Your task to perform on an android device: toggle translation in the chrome app Image 0: 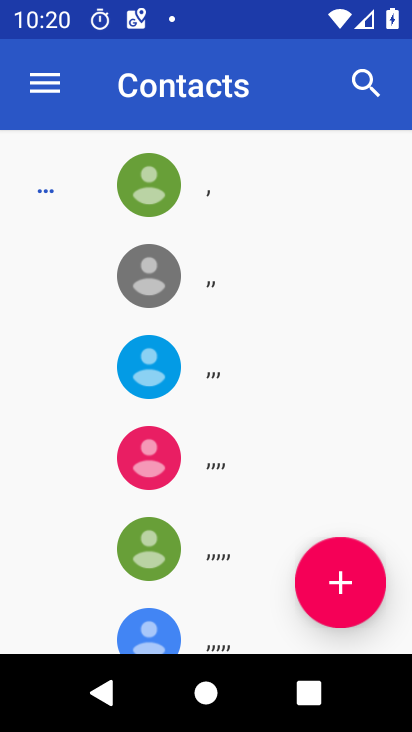
Step 0: press home button
Your task to perform on an android device: toggle translation in the chrome app Image 1: 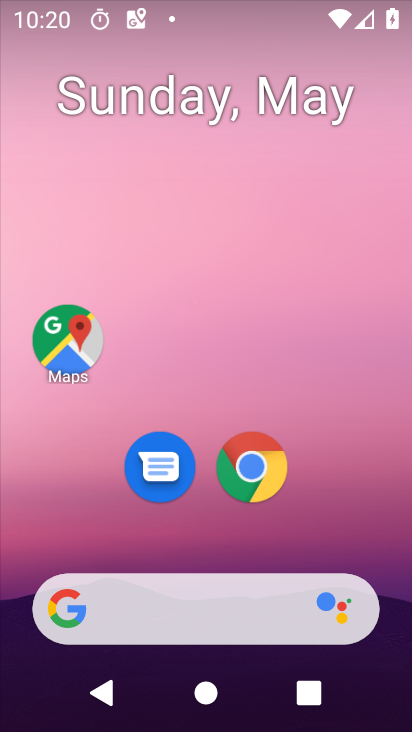
Step 1: click (250, 483)
Your task to perform on an android device: toggle translation in the chrome app Image 2: 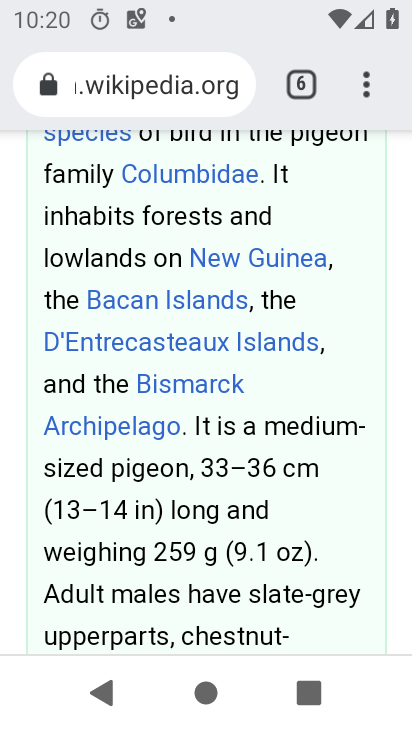
Step 2: drag from (362, 79) to (116, 516)
Your task to perform on an android device: toggle translation in the chrome app Image 3: 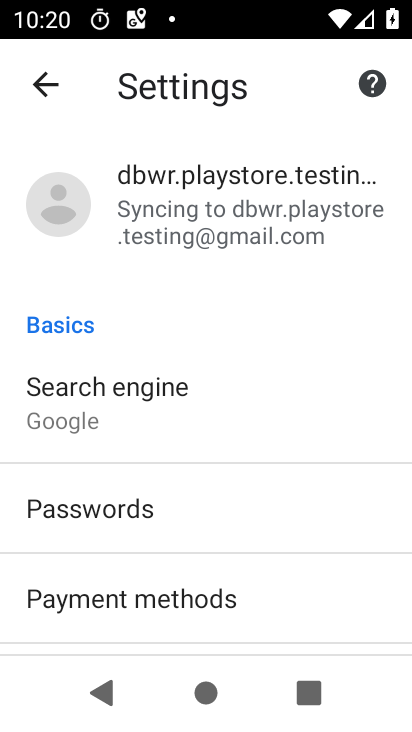
Step 3: drag from (149, 563) to (132, 271)
Your task to perform on an android device: toggle translation in the chrome app Image 4: 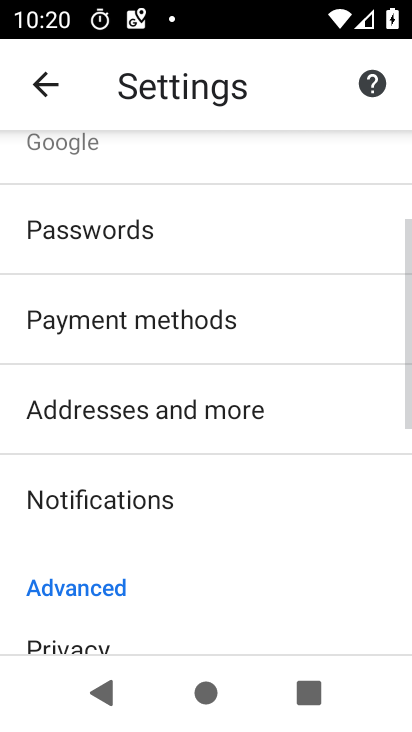
Step 4: drag from (181, 530) to (203, 256)
Your task to perform on an android device: toggle translation in the chrome app Image 5: 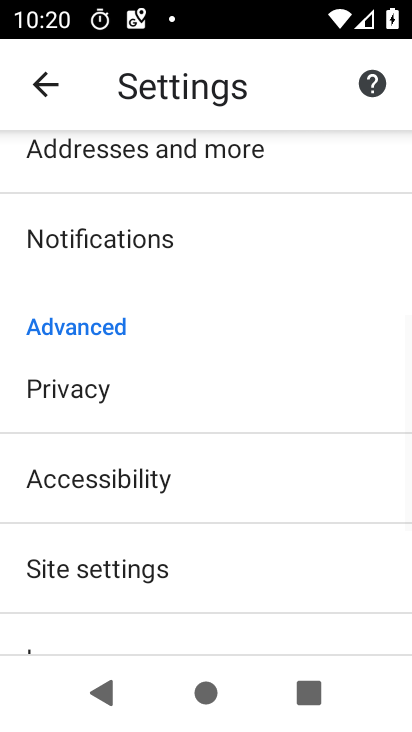
Step 5: drag from (227, 507) to (234, 272)
Your task to perform on an android device: toggle translation in the chrome app Image 6: 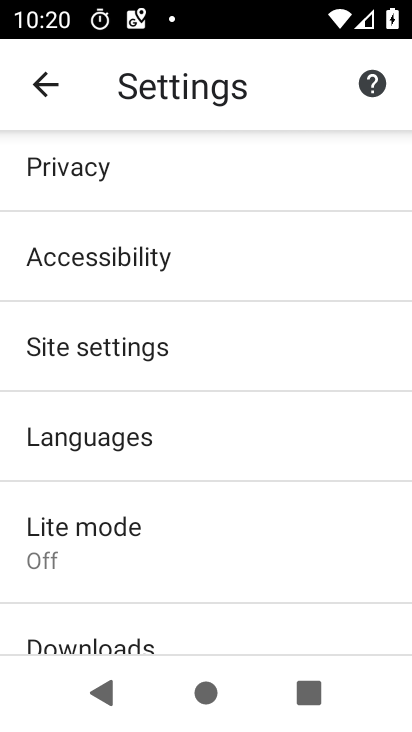
Step 6: click (196, 421)
Your task to perform on an android device: toggle translation in the chrome app Image 7: 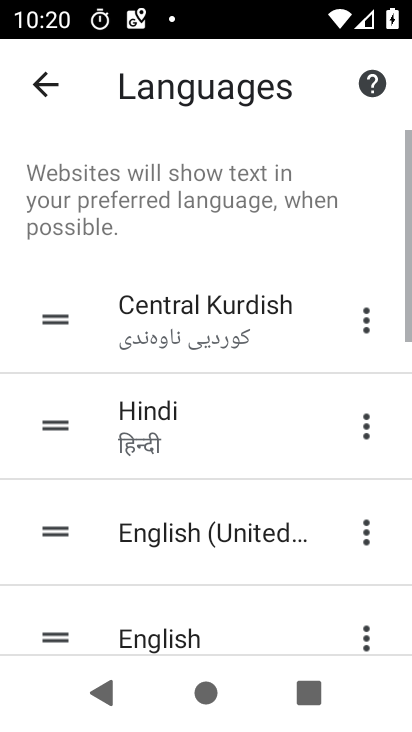
Step 7: drag from (230, 554) to (210, 213)
Your task to perform on an android device: toggle translation in the chrome app Image 8: 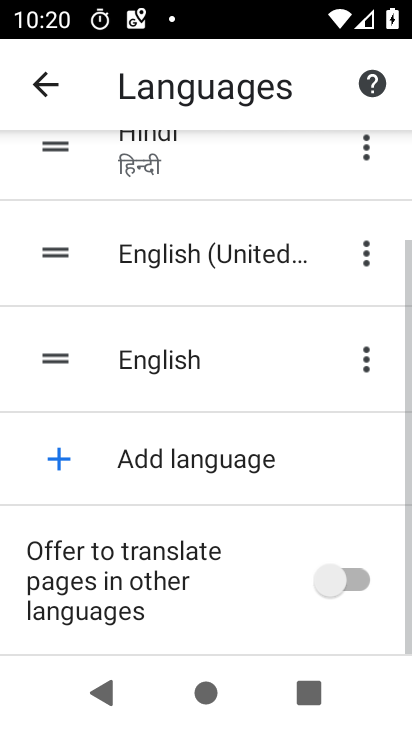
Step 8: drag from (222, 532) to (223, 271)
Your task to perform on an android device: toggle translation in the chrome app Image 9: 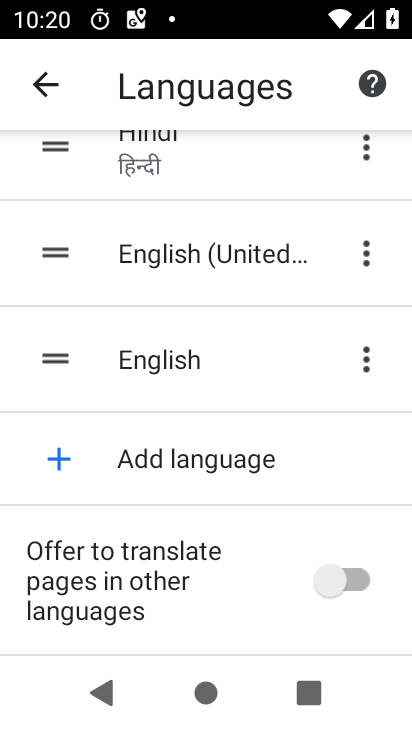
Step 9: click (358, 569)
Your task to perform on an android device: toggle translation in the chrome app Image 10: 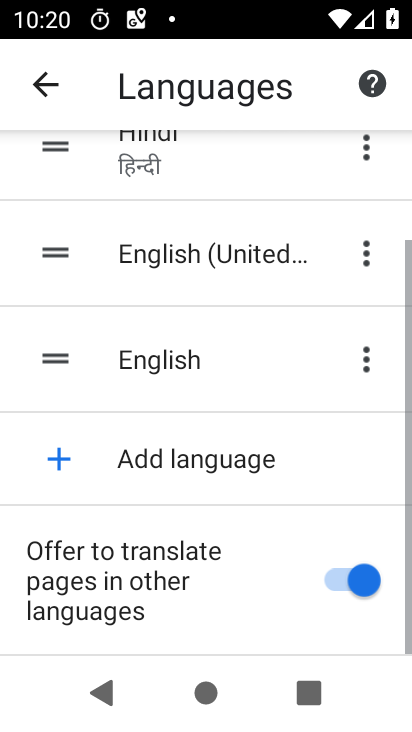
Step 10: task complete